Your task to perform on an android device: toggle sleep mode Image 0: 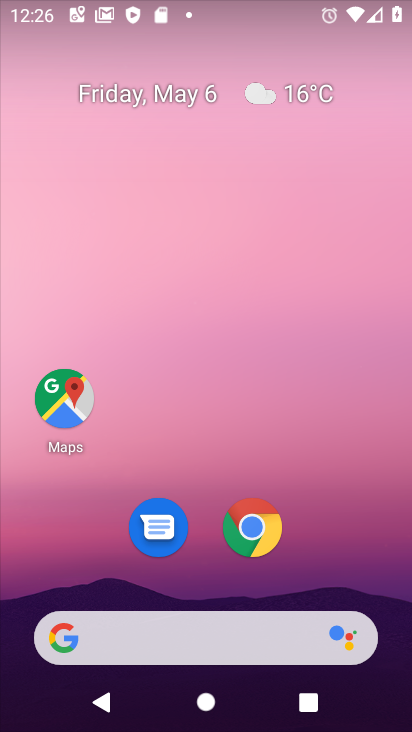
Step 0: drag from (185, 302) to (185, 90)
Your task to perform on an android device: toggle sleep mode Image 1: 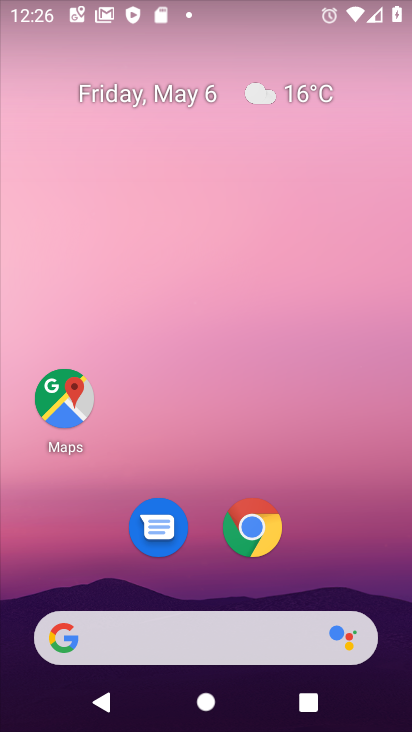
Step 1: drag from (335, 580) to (107, 39)
Your task to perform on an android device: toggle sleep mode Image 2: 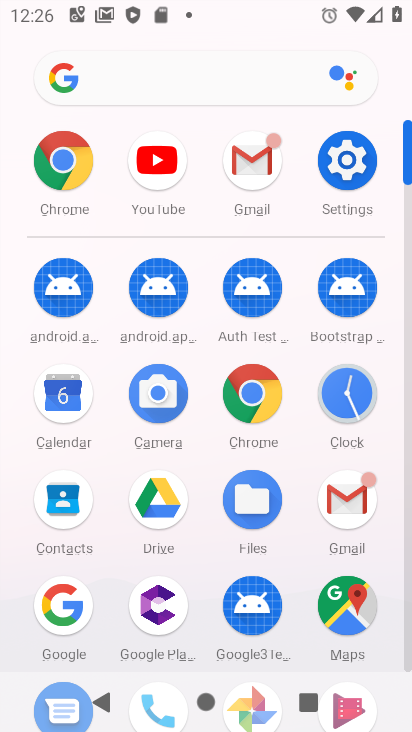
Step 2: click (353, 178)
Your task to perform on an android device: toggle sleep mode Image 3: 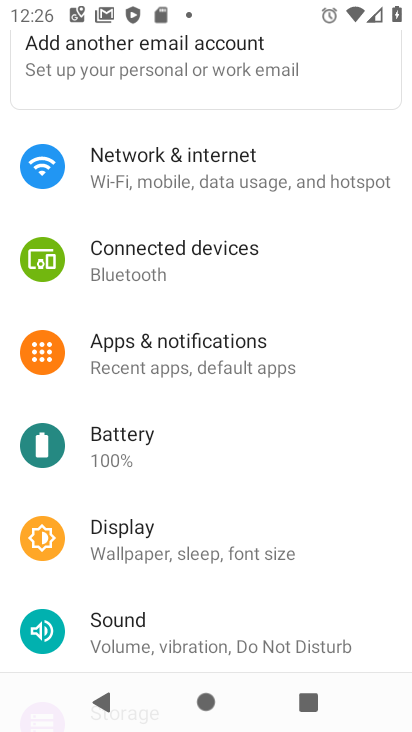
Step 3: click (169, 552)
Your task to perform on an android device: toggle sleep mode Image 4: 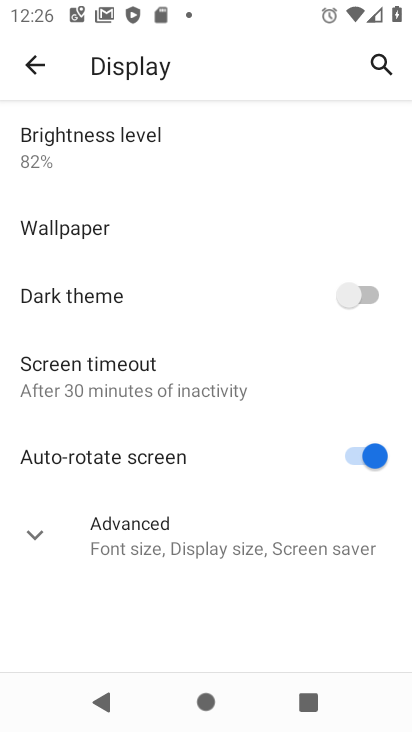
Step 4: click (169, 552)
Your task to perform on an android device: toggle sleep mode Image 5: 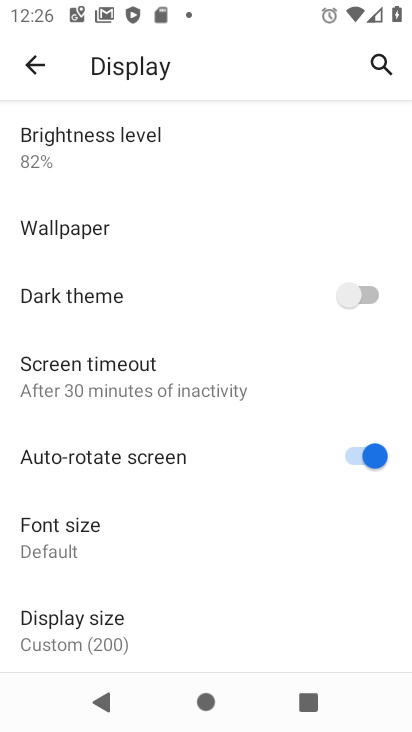
Step 5: task complete